Your task to perform on an android device: see sites visited before in the chrome app Image 0: 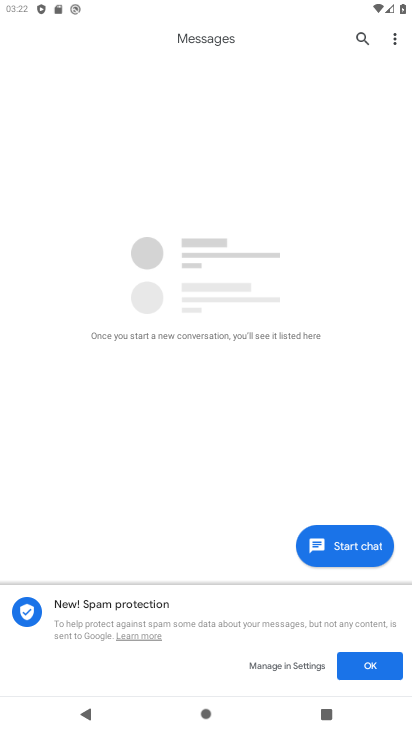
Step 0: click (213, 662)
Your task to perform on an android device: see sites visited before in the chrome app Image 1: 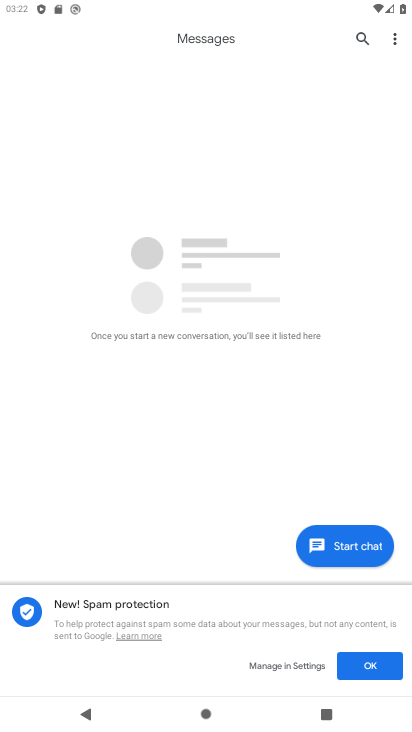
Step 1: press home button
Your task to perform on an android device: see sites visited before in the chrome app Image 2: 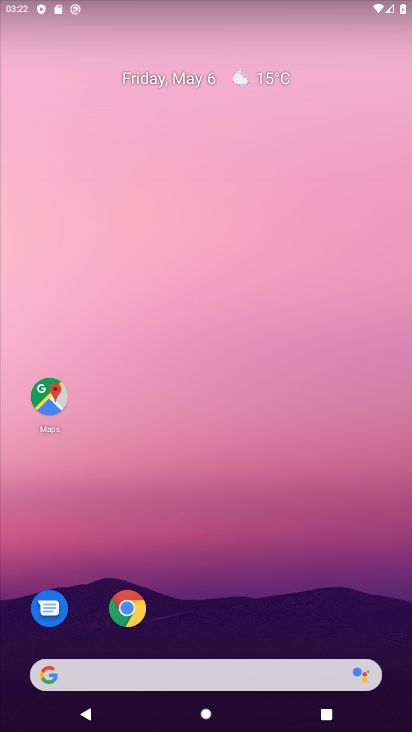
Step 2: click (138, 607)
Your task to perform on an android device: see sites visited before in the chrome app Image 3: 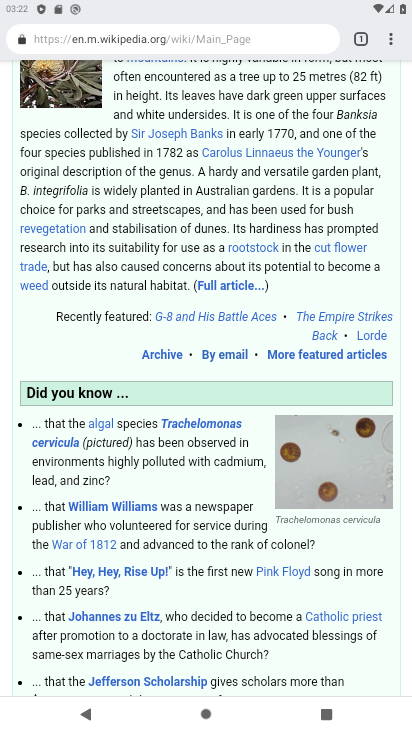
Step 3: task complete